Your task to perform on an android device: Go to display settings Image 0: 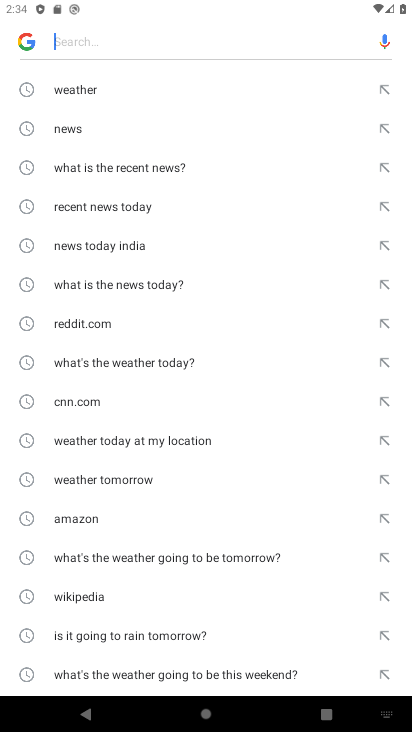
Step 0: press home button
Your task to perform on an android device: Go to display settings Image 1: 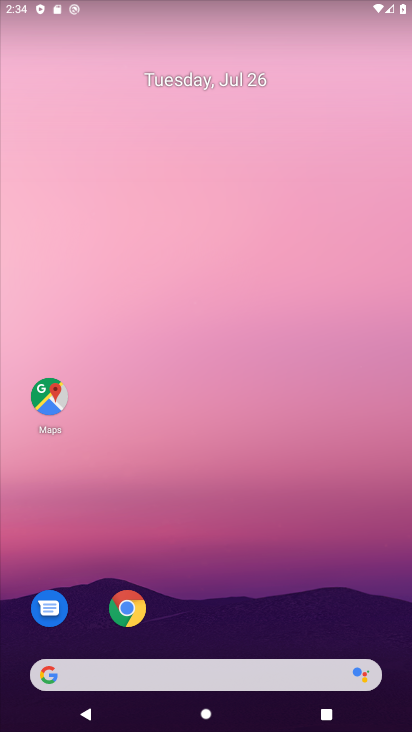
Step 1: drag from (276, 595) to (298, 228)
Your task to perform on an android device: Go to display settings Image 2: 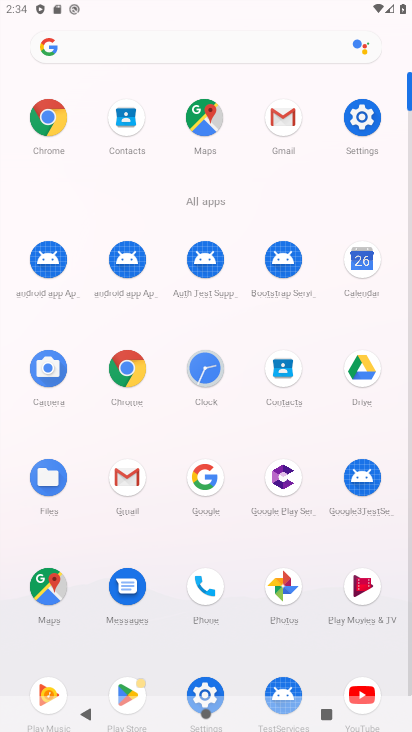
Step 2: click (363, 130)
Your task to perform on an android device: Go to display settings Image 3: 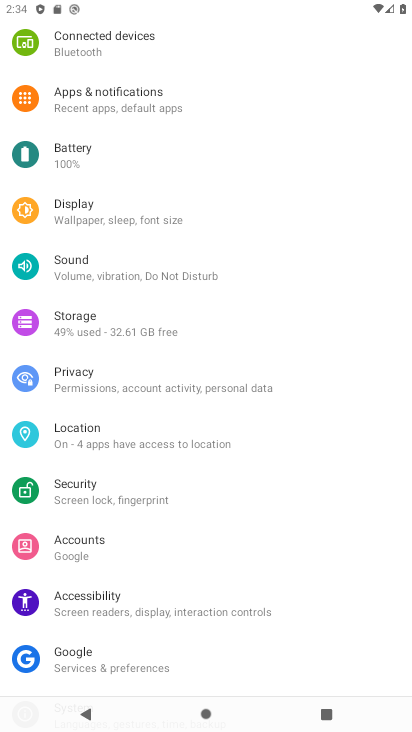
Step 3: click (74, 207)
Your task to perform on an android device: Go to display settings Image 4: 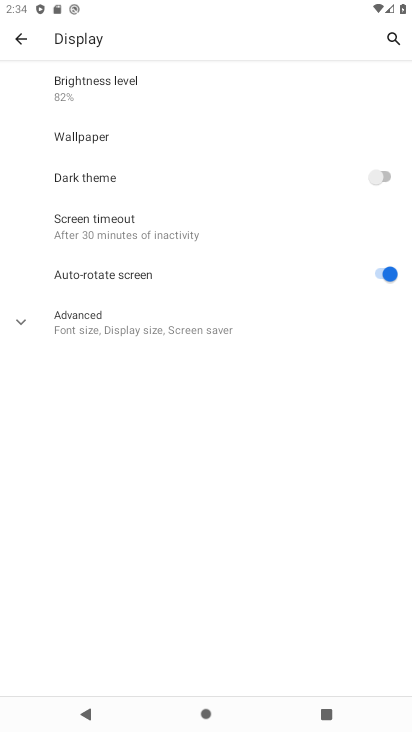
Step 4: task complete